Your task to perform on an android device: empty trash in the gmail app Image 0: 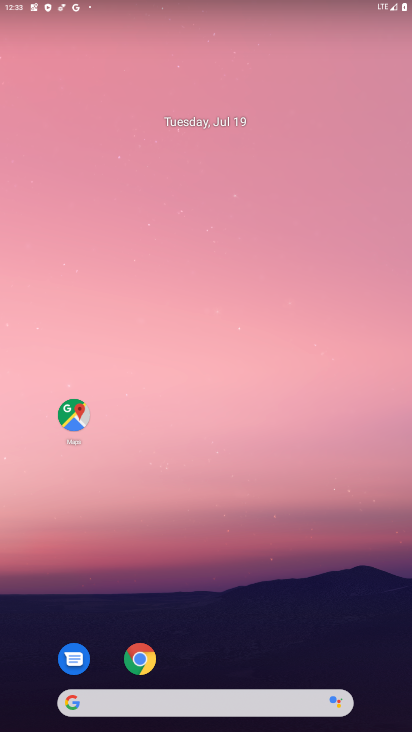
Step 0: drag from (177, 703) to (203, 205)
Your task to perform on an android device: empty trash in the gmail app Image 1: 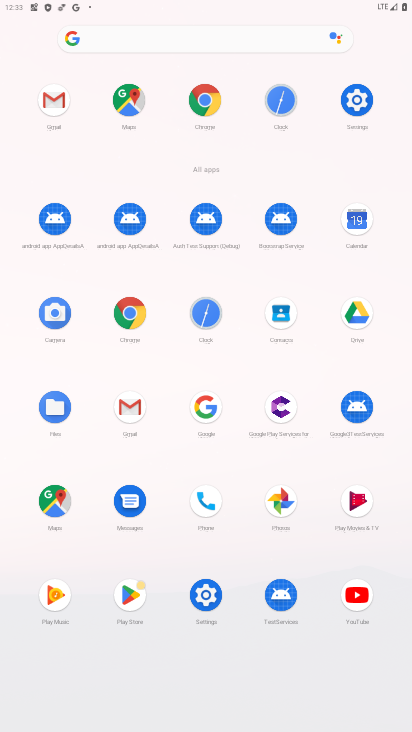
Step 1: click (51, 99)
Your task to perform on an android device: empty trash in the gmail app Image 2: 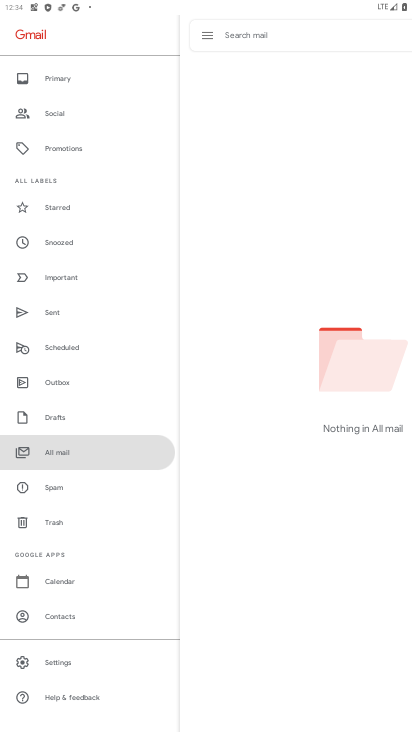
Step 2: click (54, 519)
Your task to perform on an android device: empty trash in the gmail app Image 3: 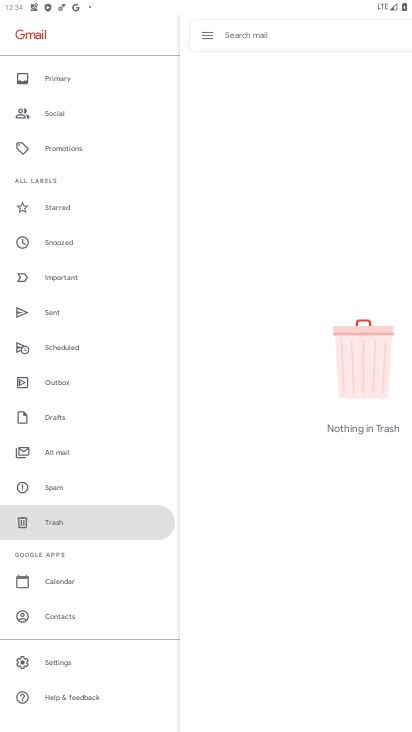
Step 3: task complete